Your task to perform on an android device: turn off improve location accuracy Image 0: 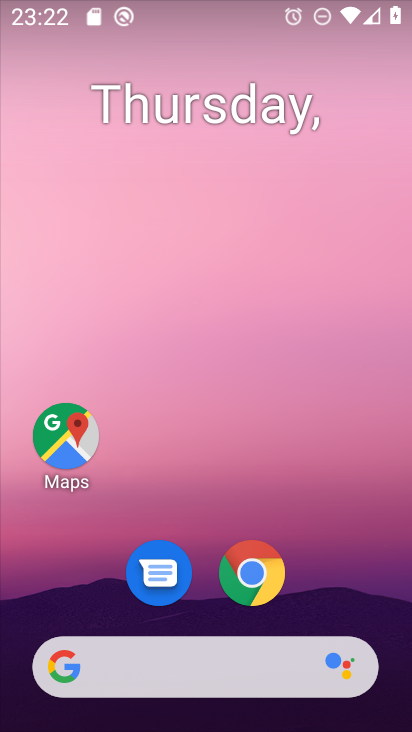
Step 0: drag from (334, 563) to (262, 125)
Your task to perform on an android device: turn off improve location accuracy Image 1: 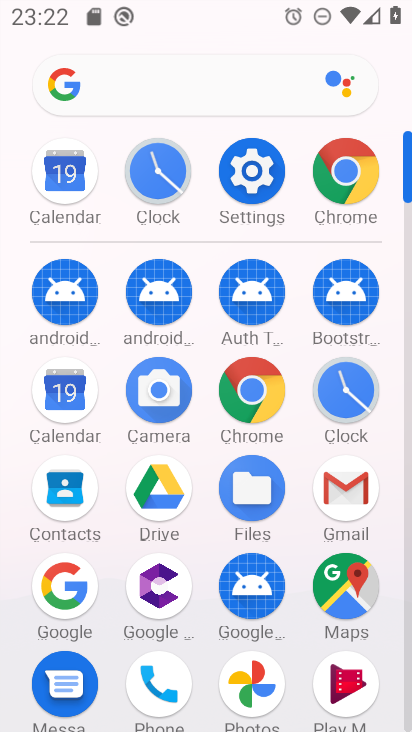
Step 1: click (261, 178)
Your task to perform on an android device: turn off improve location accuracy Image 2: 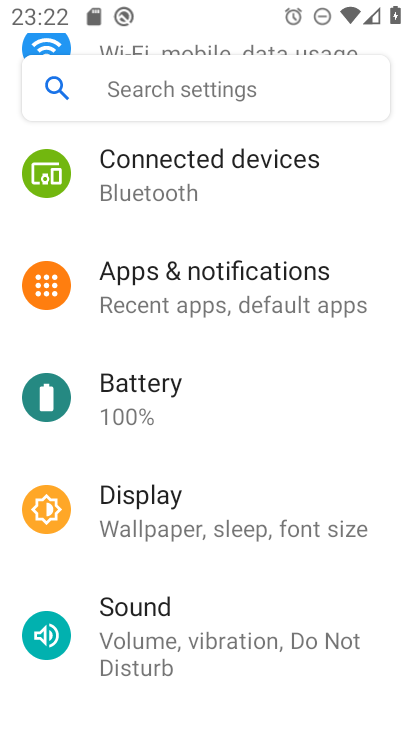
Step 2: drag from (225, 624) to (238, 94)
Your task to perform on an android device: turn off improve location accuracy Image 3: 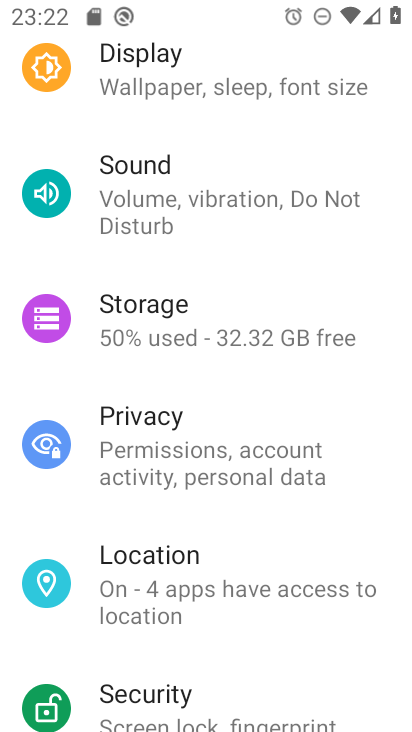
Step 3: click (256, 586)
Your task to perform on an android device: turn off improve location accuracy Image 4: 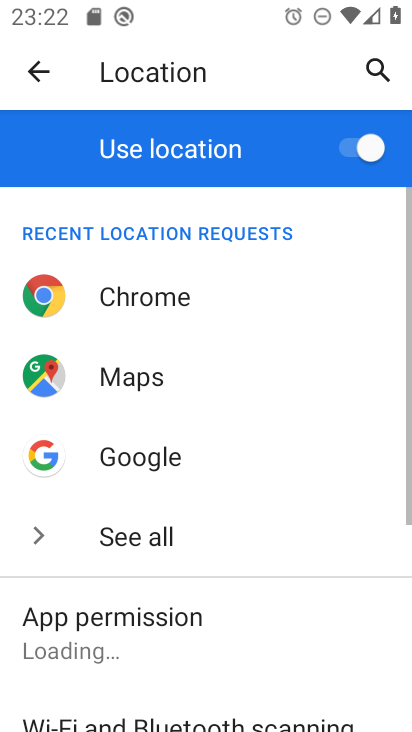
Step 4: drag from (263, 648) to (219, 149)
Your task to perform on an android device: turn off improve location accuracy Image 5: 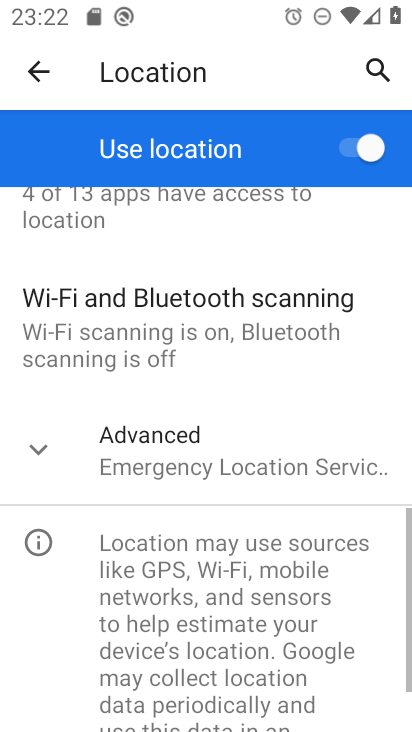
Step 5: click (215, 485)
Your task to perform on an android device: turn off improve location accuracy Image 6: 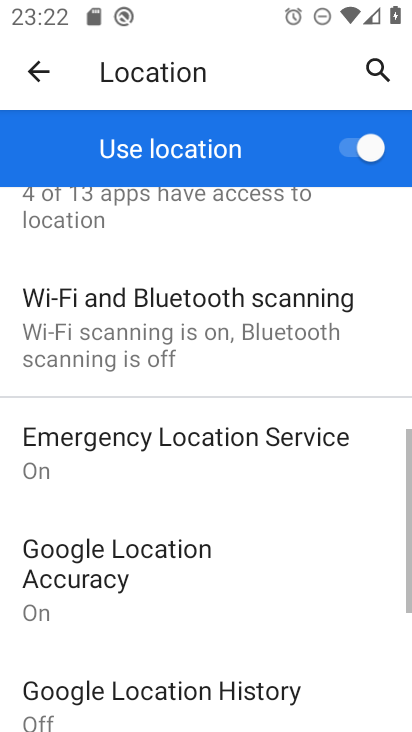
Step 6: drag from (299, 649) to (282, 306)
Your task to perform on an android device: turn off improve location accuracy Image 7: 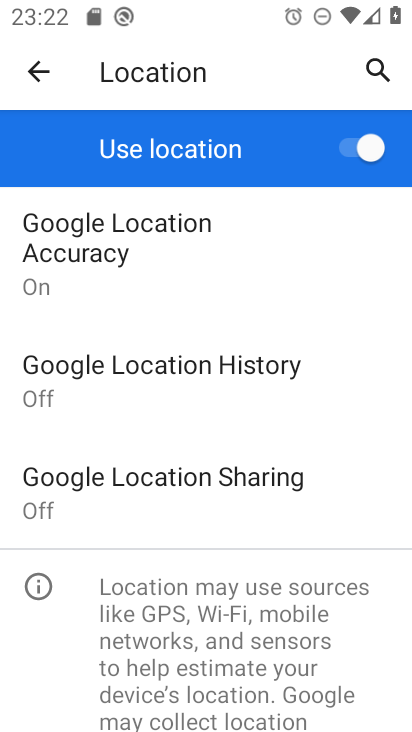
Step 7: click (169, 237)
Your task to perform on an android device: turn off improve location accuracy Image 8: 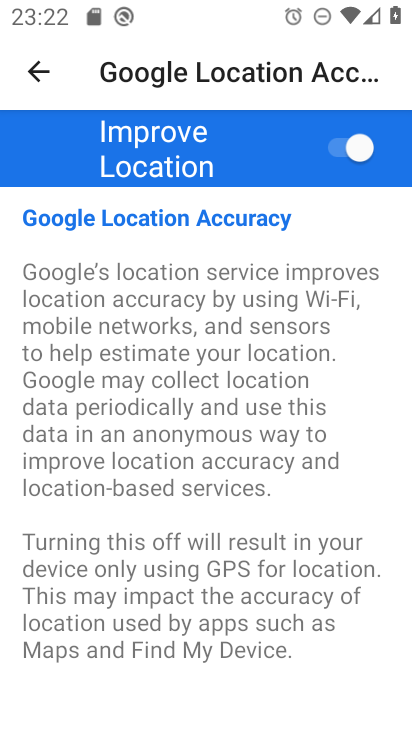
Step 8: click (332, 141)
Your task to perform on an android device: turn off improve location accuracy Image 9: 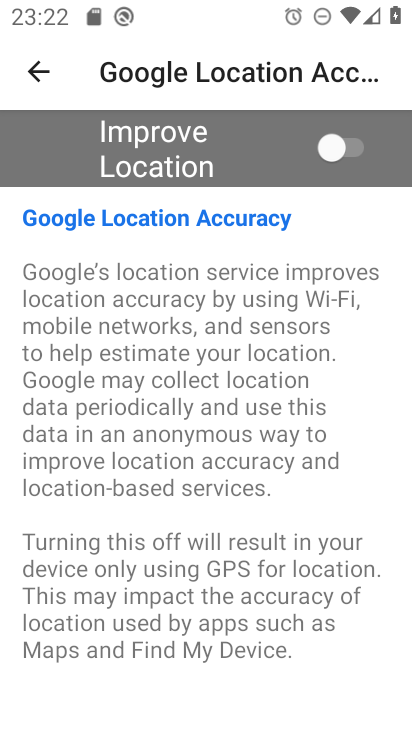
Step 9: task complete